Your task to perform on an android device: choose inbox layout in the gmail app Image 0: 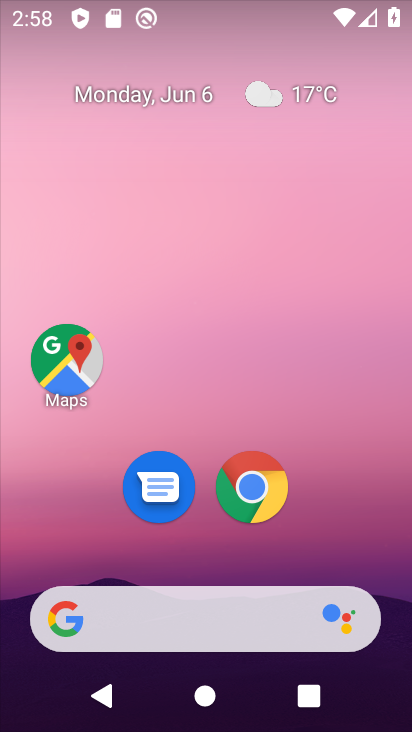
Step 0: drag from (116, 564) to (237, 71)
Your task to perform on an android device: choose inbox layout in the gmail app Image 1: 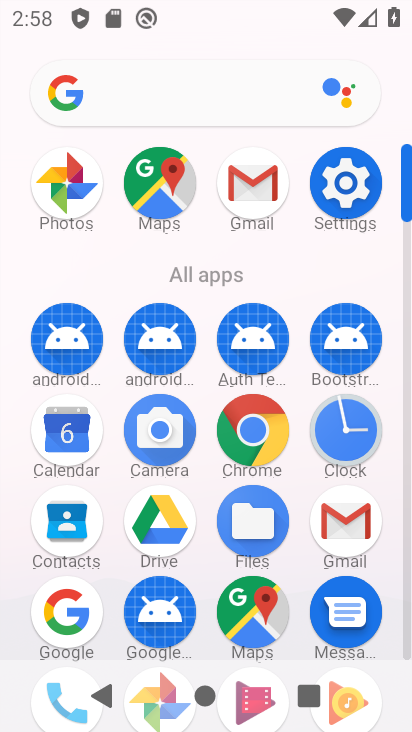
Step 1: drag from (184, 614) to (251, 342)
Your task to perform on an android device: choose inbox layout in the gmail app Image 2: 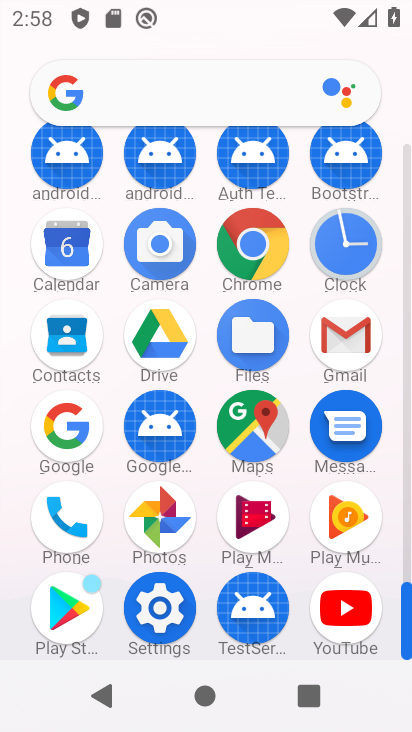
Step 2: click (349, 343)
Your task to perform on an android device: choose inbox layout in the gmail app Image 3: 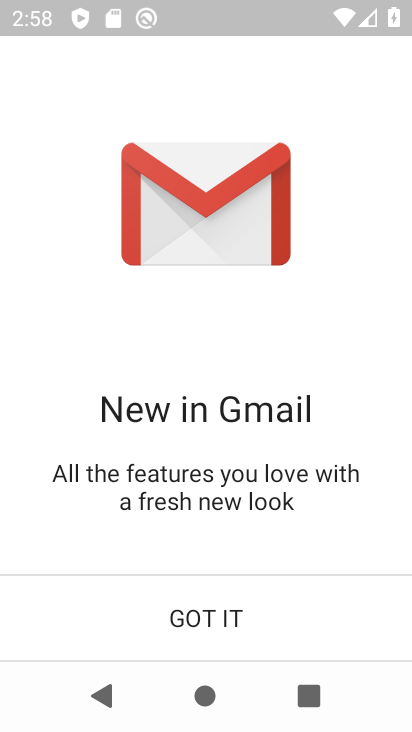
Step 3: click (272, 642)
Your task to perform on an android device: choose inbox layout in the gmail app Image 4: 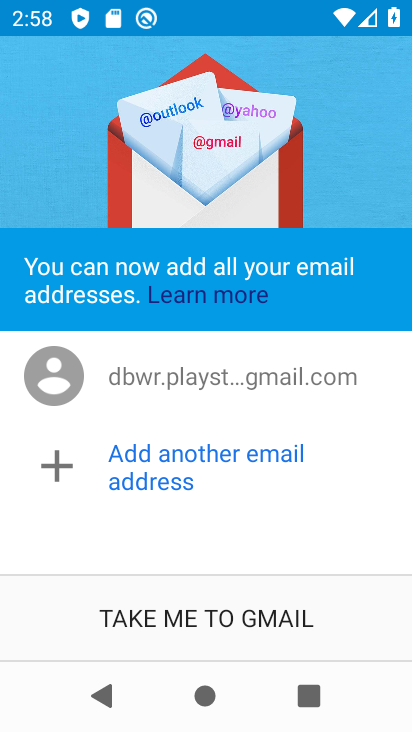
Step 4: click (272, 642)
Your task to perform on an android device: choose inbox layout in the gmail app Image 5: 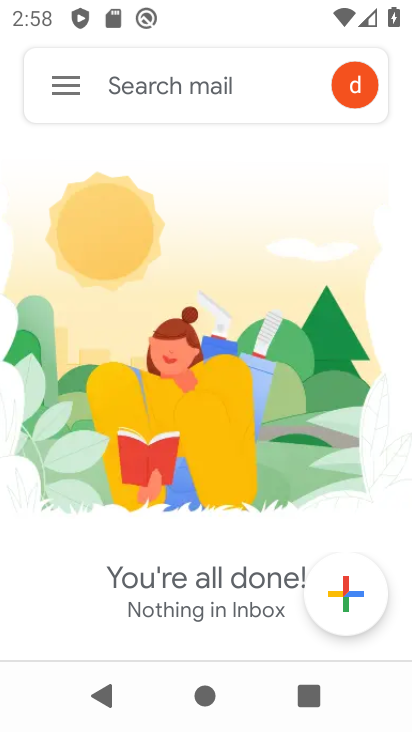
Step 5: click (69, 91)
Your task to perform on an android device: choose inbox layout in the gmail app Image 6: 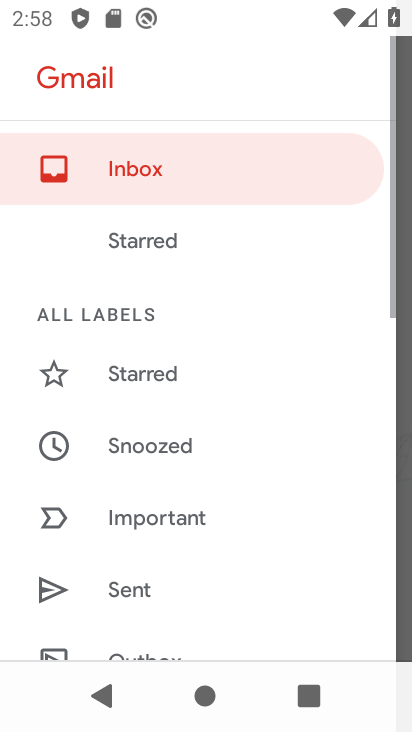
Step 6: drag from (110, 567) to (252, 160)
Your task to perform on an android device: choose inbox layout in the gmail app Image 7: 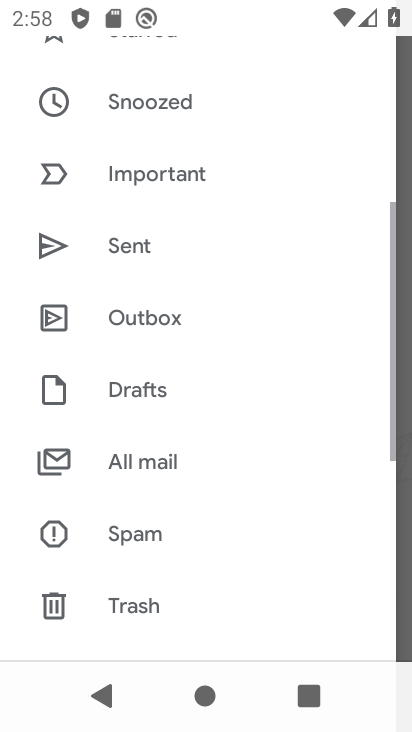
Step 7: drag from (182, 577) to (322, 115)
Your task to perform on an android device: choose inbox layout in the gmail app Image 8: 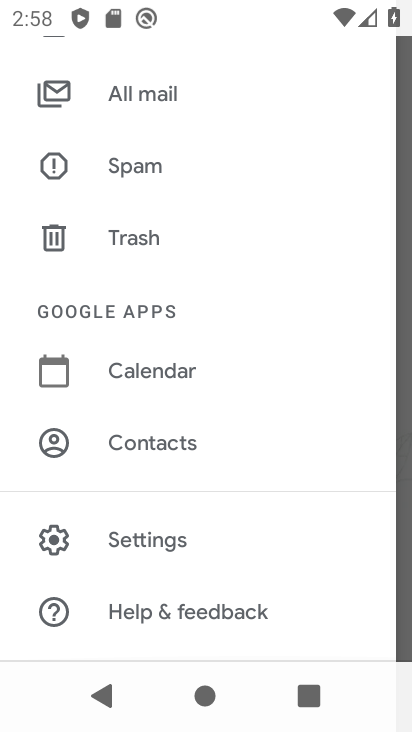
Step 8: click (235, 531)
Your task to perform on an android device: choose inbox layout in the gmail app Image 9: 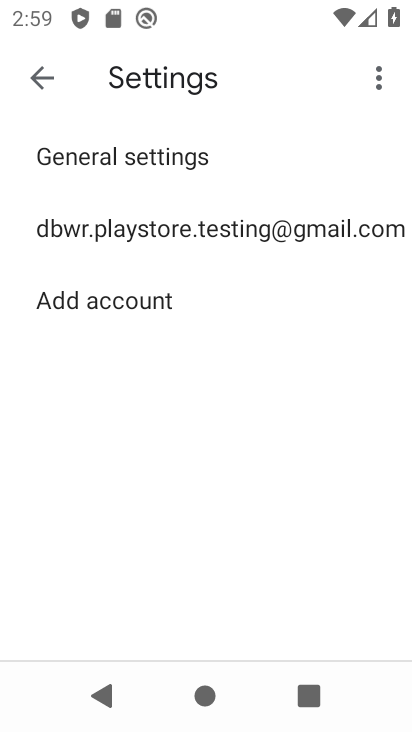
Step 9: click (301, 245)
Your task to perform on an android device: choose inbox layout in the gmail app Image 10: 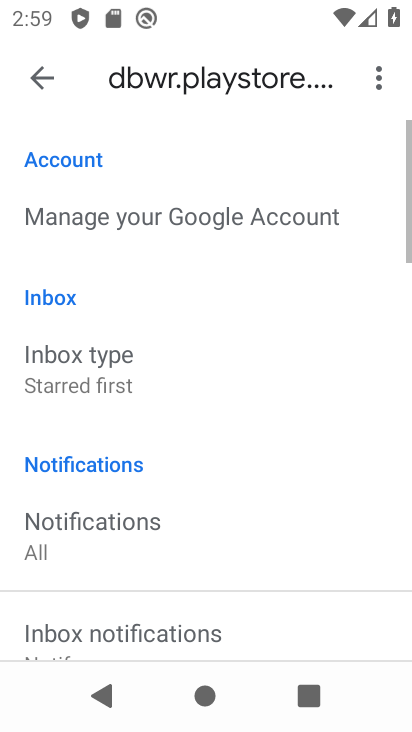
Step 10: click (175, 379)
Your task to perform on an android device: choose inbox layout in the gmail app Image 11: 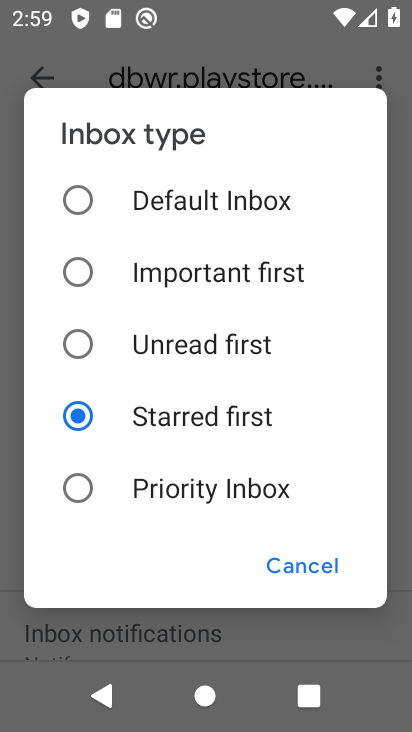
Step 11: click (262, 198)
Your task to perform on an android device: choose inbox layout in the gmail app Image 12: 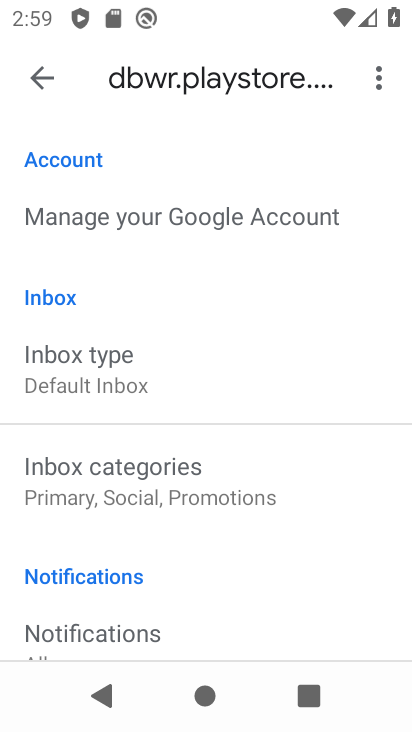
Step 12: task complete